Your task to perform on an android device: Clear the cart on ebay.com. Image 0: 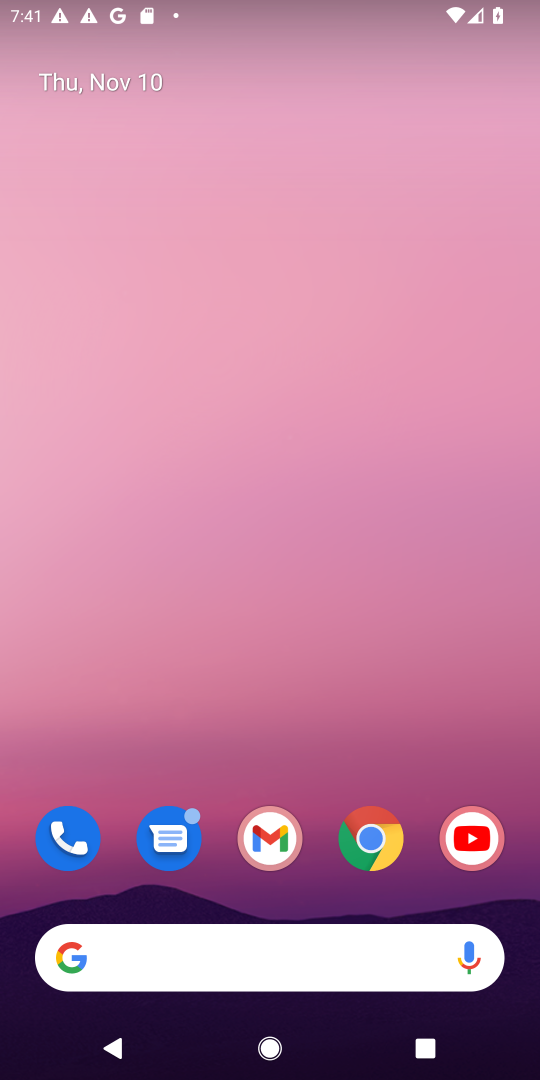
Step 0: drag from (321, 894) to (346, 9)
Your task to perform on an android device: Clear the cart on ebay.com. Image 1: 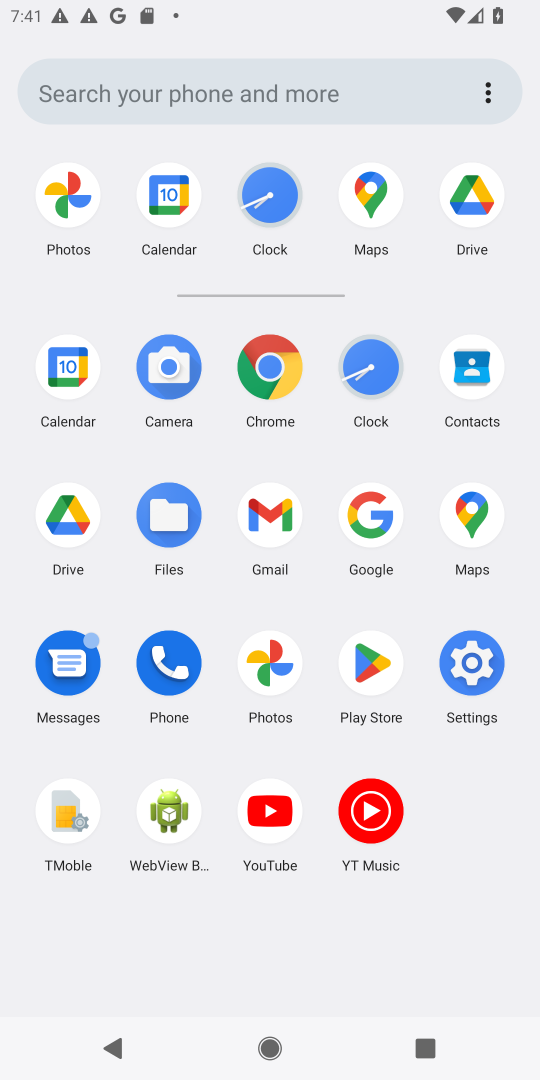
Step 1: click (265, 373)
Your task to perform on an android device: Clear the cart on ebay.com. Image 2: 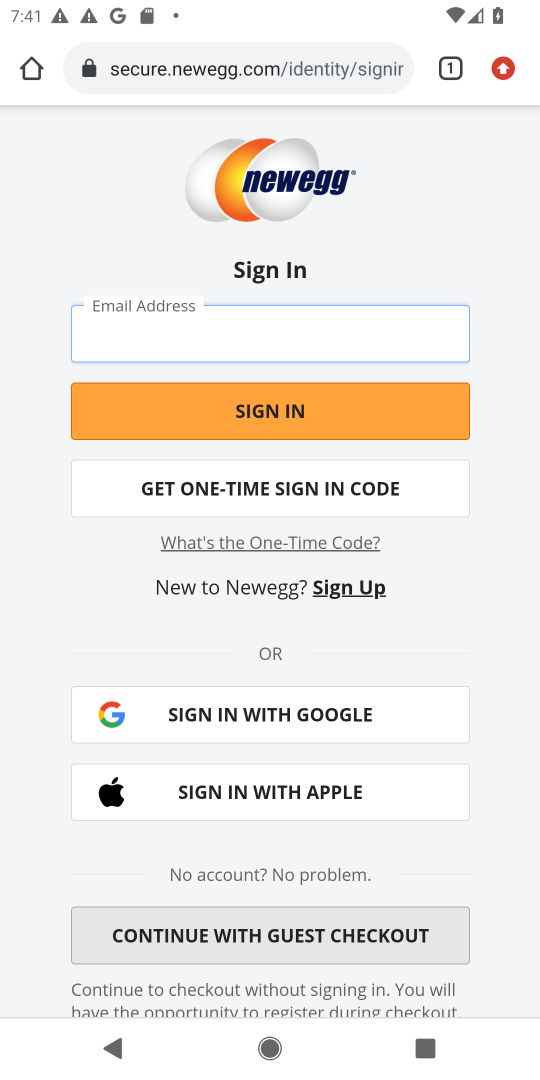
Step 2: click (335, 72)
Your task to perform on an android device: Clear the cart on ebay.com. Image 3: 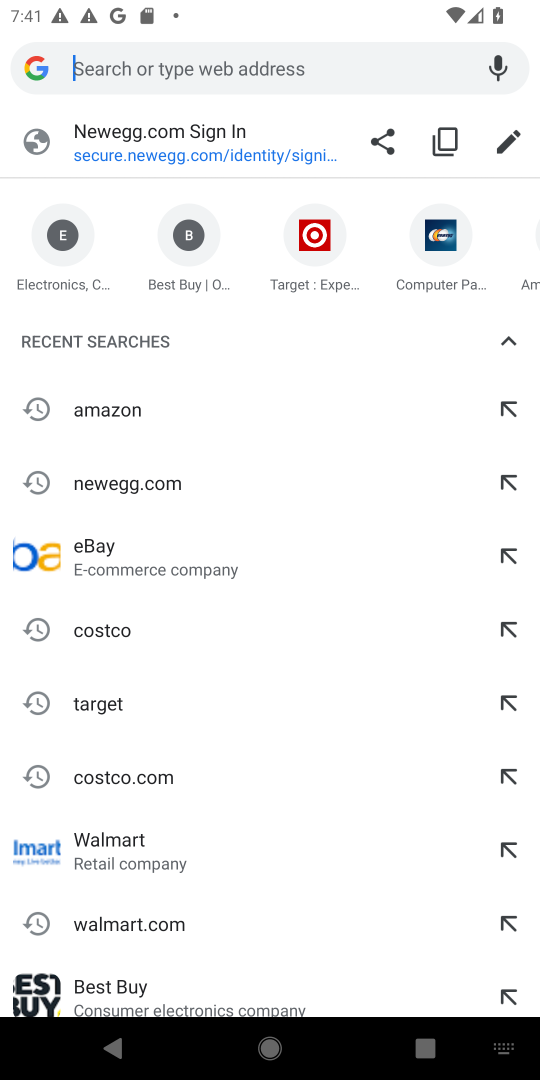
Step 3: type "ebay.com"
Your task to perform on an android device: Clear the cart on ebay.com. Image 4: 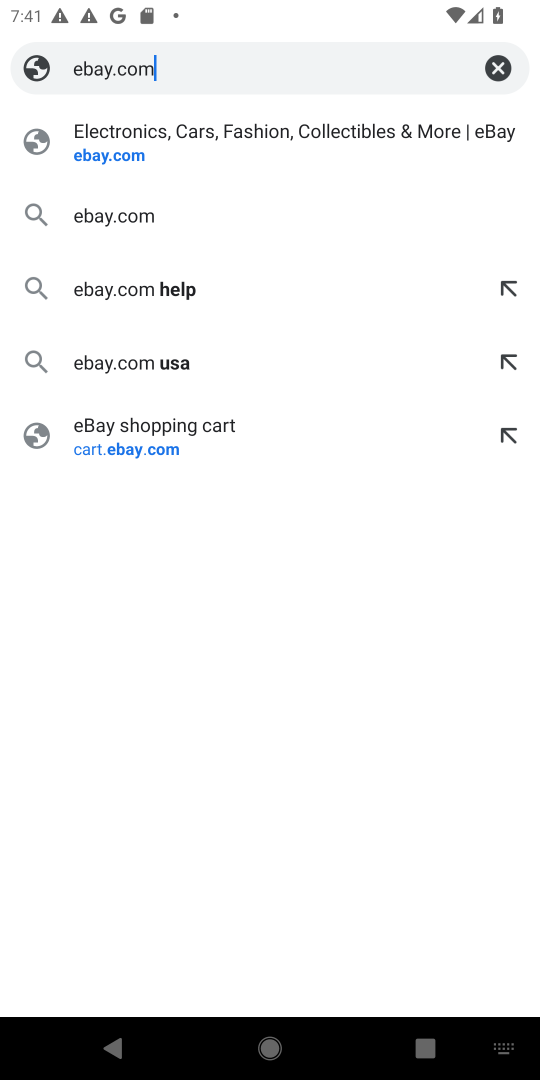
Step 4: press enter
Your task to perform on an android device: Clear the cart on ebay.com. Image 5: 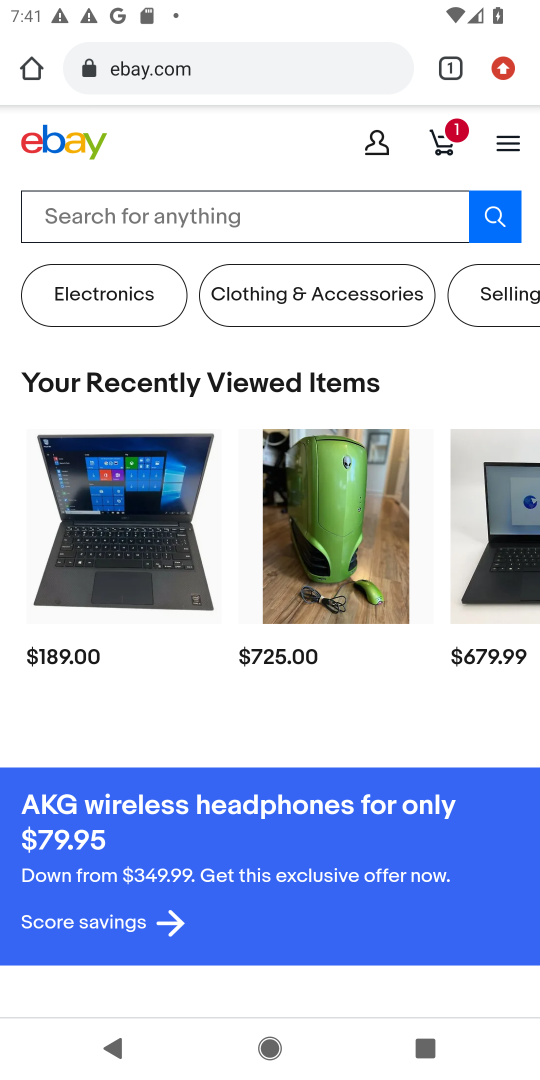
Step 5: click (454, 128)
Your task to perform on an android device: Clear the cart on ebay.com. Image 6: 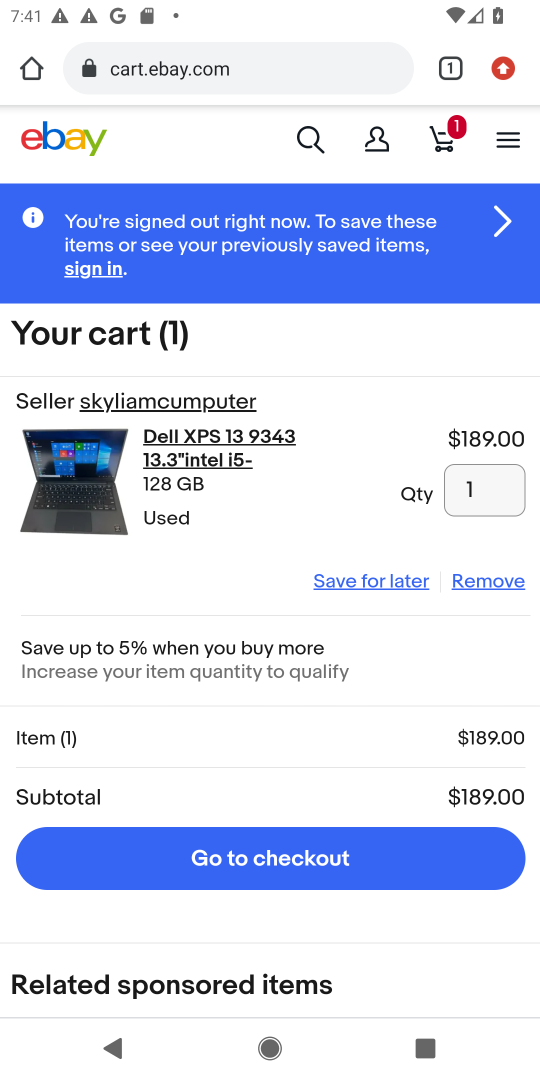
Step 6: click (494, 577)
Your task to perform on an android device: Clear the cart on ebay.com. Image 7: 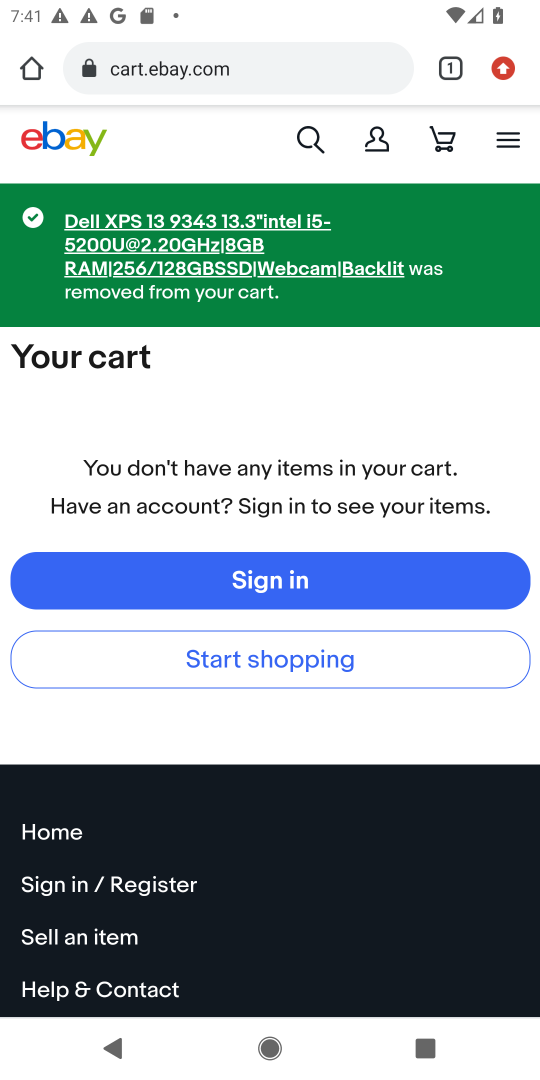
Step 7: task complete